Your task to perform on an android device: Show me popular videos on Youtube Image 0: 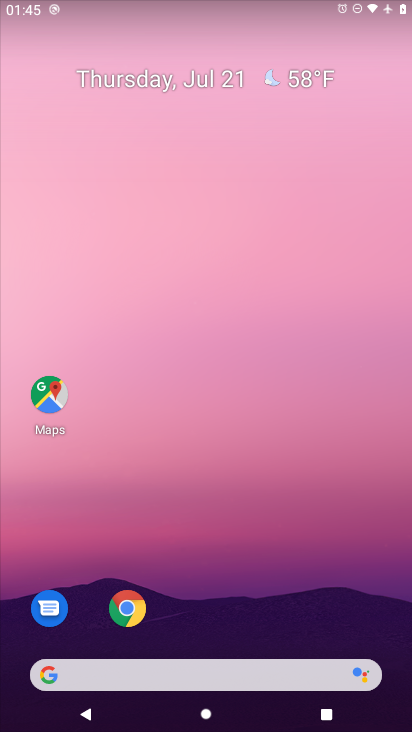
Step 0: press home button
Your task to perform on an android device: Show me popular videos on Youtube Image 1: 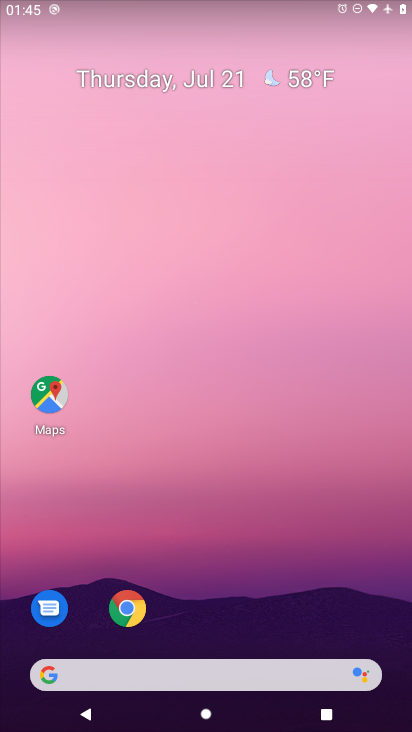
Step 1: drag from (223, 626) to (211, 24)
Your task to perform on an android device: Show me popular videos on Youtube Image 2: 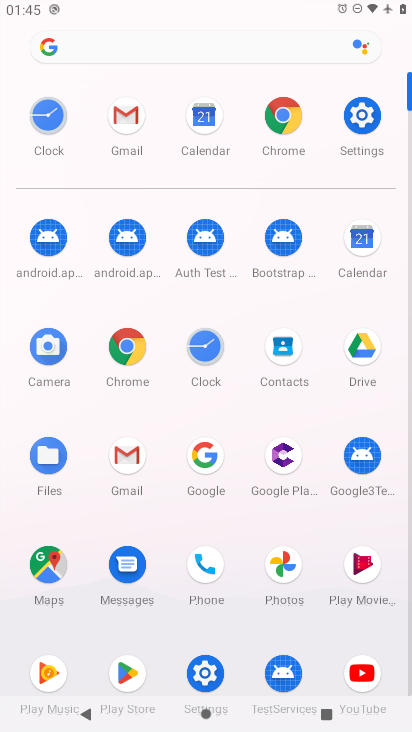
Step 2: click (360, 678)
Your task to perform on an android device: Show me popular videos on Youtube Image 3: 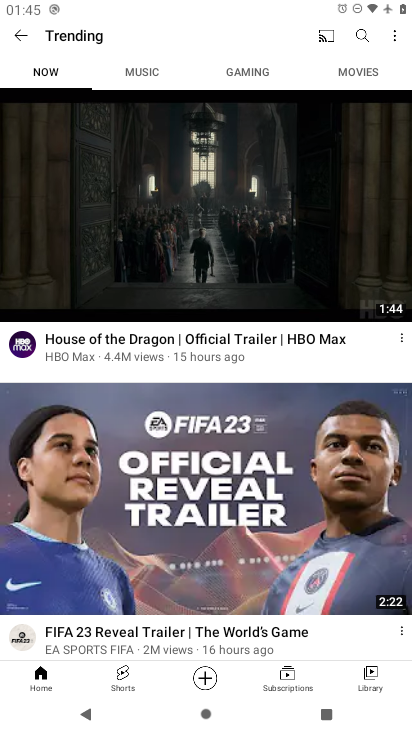
Step 3: click (45, 672)
Your task to perform on an android device: Show me popular videos on Youtube Image 4: 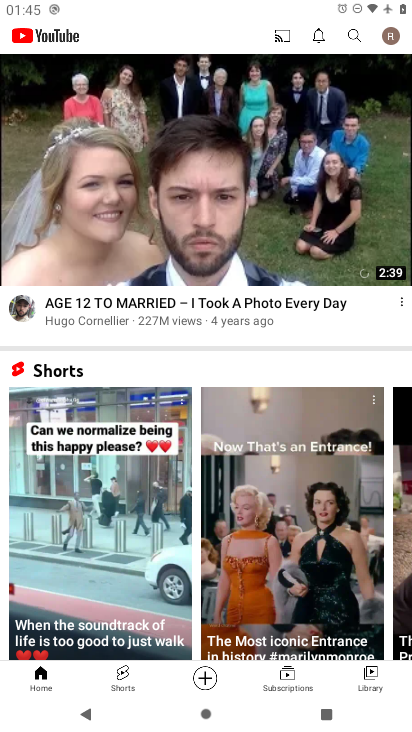
Step 4: click (208, 722)
Your task to perform on an android device: Show me popular videos on Youtube Image 5: 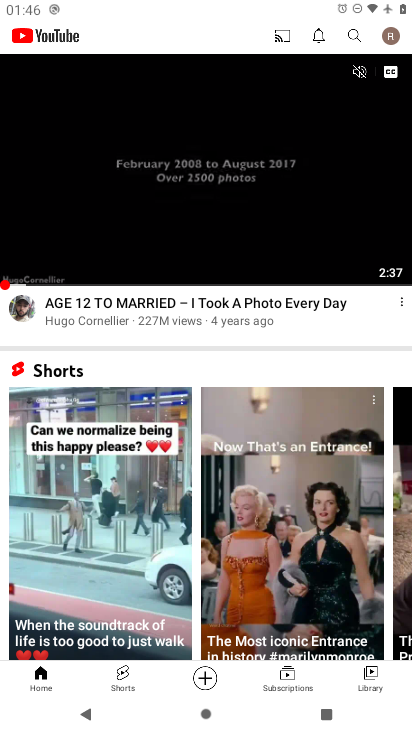
Step 5: drag from (237, 85) to (253, 709)
Your task to perform on an android device: Show me popular videos on Youtube Image 6: 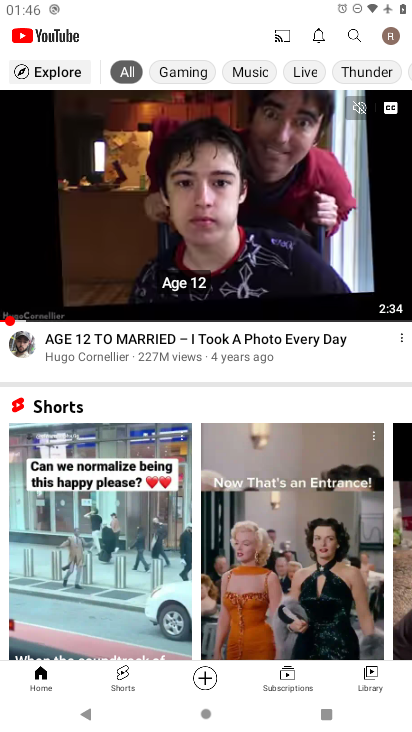
Step 6: click (58, 66)
Your task to perform on an android device: Show me popular videos on Youtube Image 7: 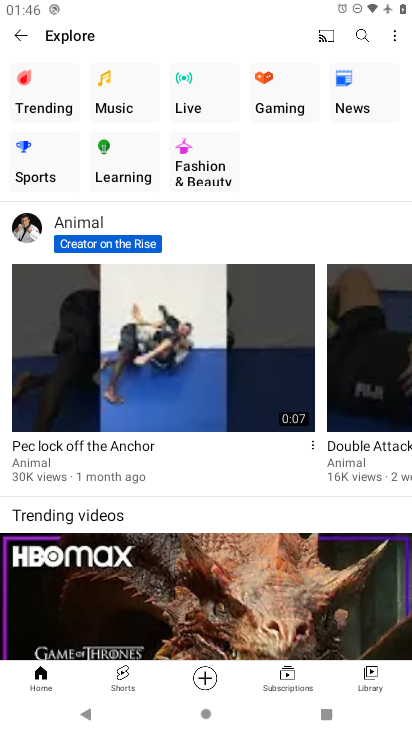
Step 7: click (60, 109)
Your task to perform on an android device: Show me popular videos on Youtube Image 8: 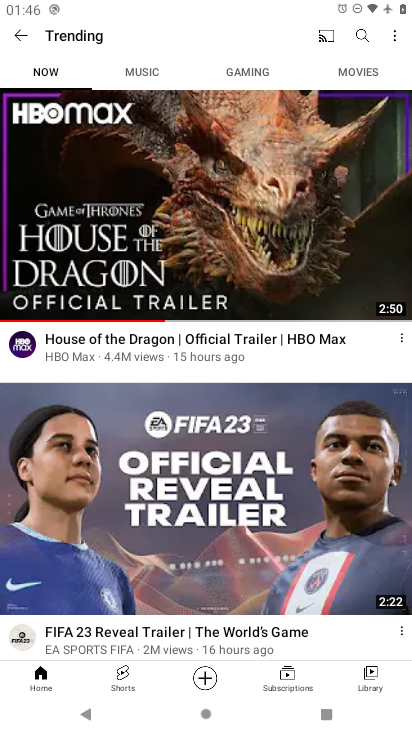
Step 8: task complete